Your task to perform on an android device: Open calendar and show me the second week of next month Image 0: 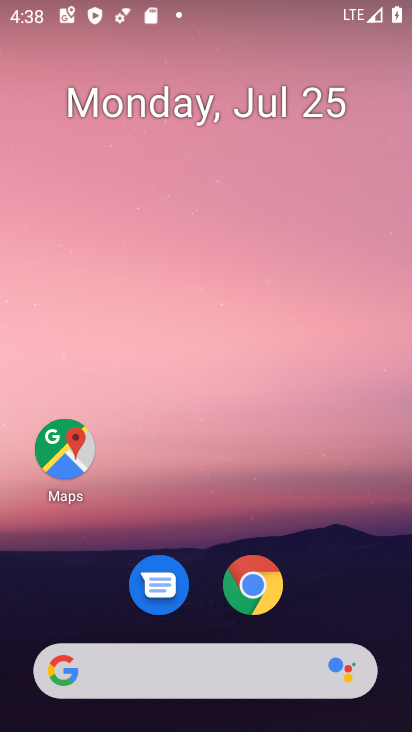
Step 0: drag from (223, 505) to (259, 125)
Your task to perform on an android device: Open calendar and show me the second week of next month Image 1: 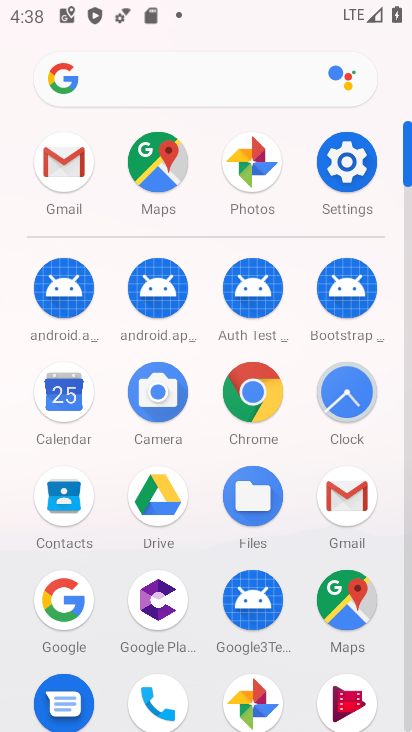
Step 1: click (72, 395)
Your task to perform on an android device: Open calendar and show me the second week of next month Image 2: 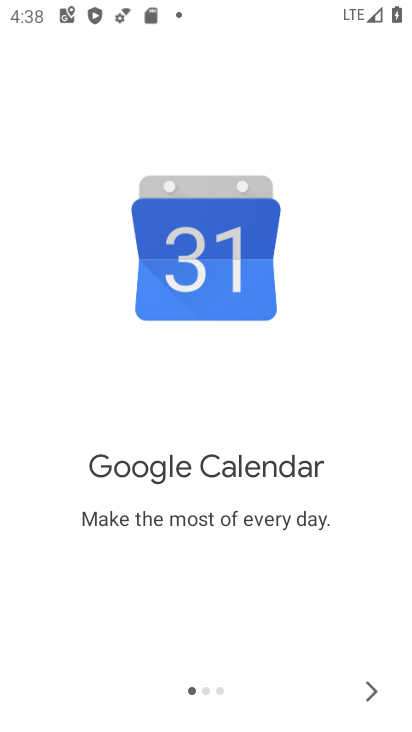
Step 2: click (372, 686)
Your task to perform on an android device: Open calendar and show me the second week of next month Image 3: 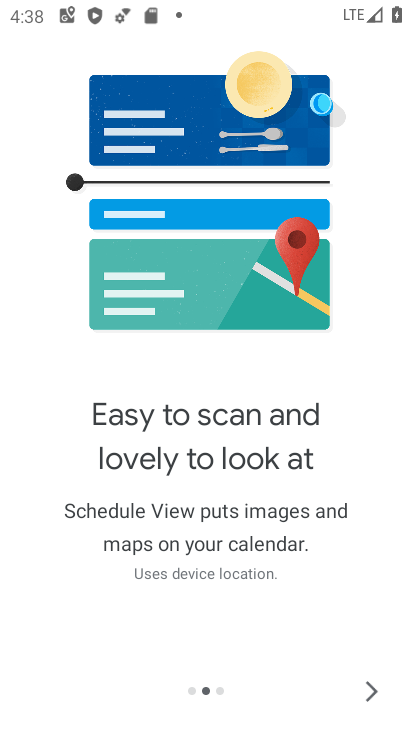
Step 3: click (372, 687)
Your task to perform on an android device: Open calendar and show me the second week of next month Image 4: 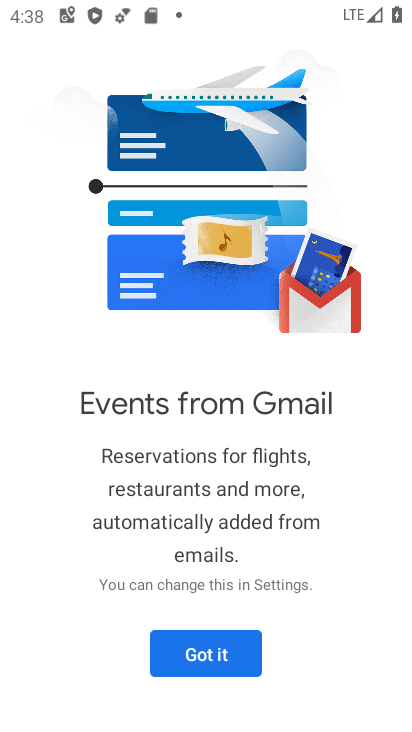
Step 4: click (236, 659)
Your task to perform on an android device: Open calendar and show me the second week of next month Image 5: 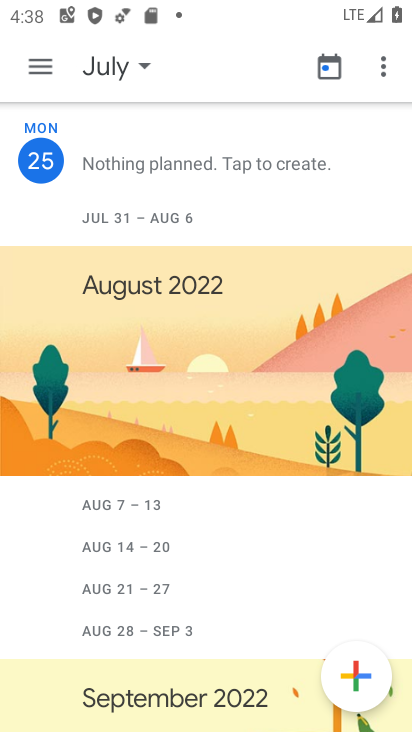
Step 5: click (39, 68)
Your task to perform on an android device: Open calendar and show me the second week of next month Image 6: 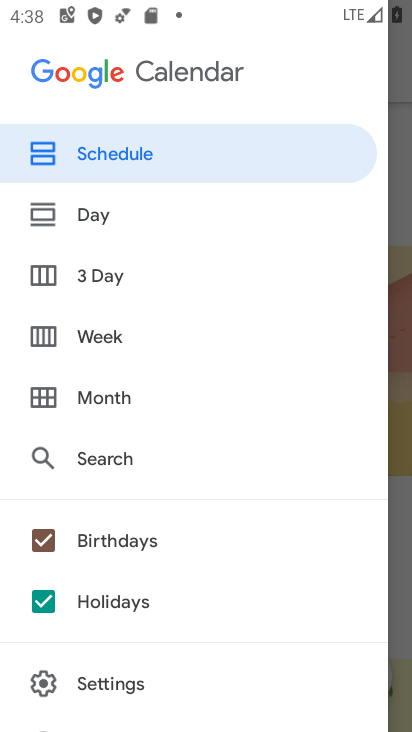
Step 6: click (46, 395)
Your task to perform on an android device: Open calendar and show me the second week of next month Image 7: 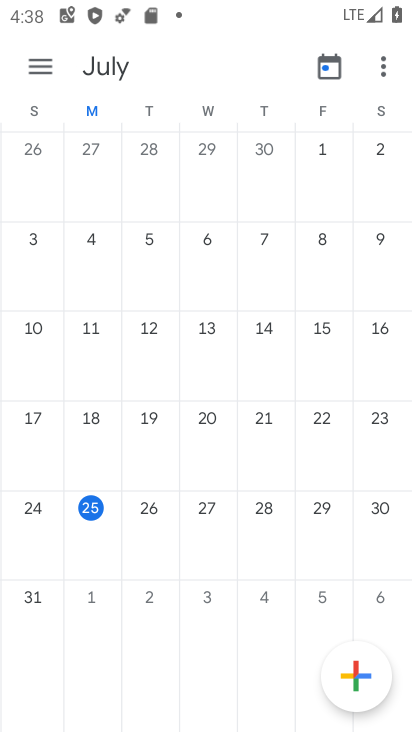
Step 7: drag from (360, 365) to (0, 349)
Your task to perform on an android device: Open calendar and show me the second week of next month Image 8: 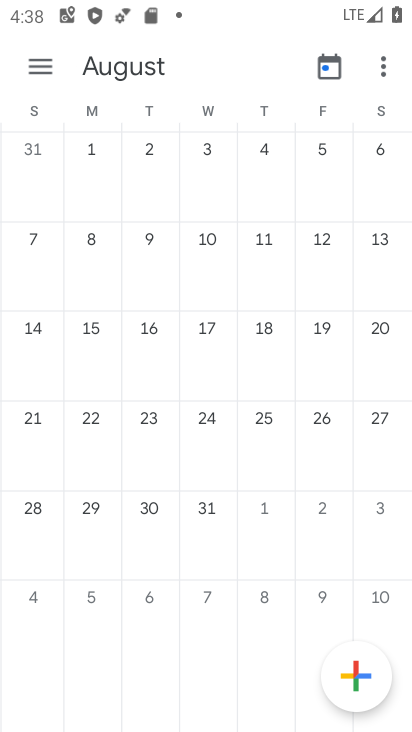
Step 8: click (41, 325)
Your task to perform on an android device: Open calendar and show me the second week of next month Image 9: 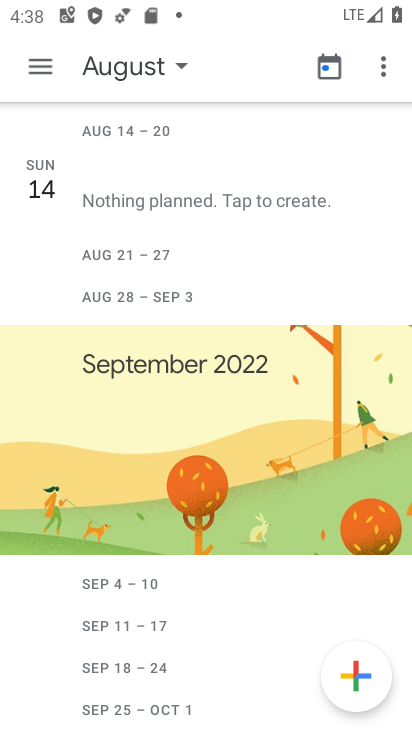
Step 9: click (47, 59)
Your task to perform on an android device: Open calendar and show me the second week of next month Image 10: 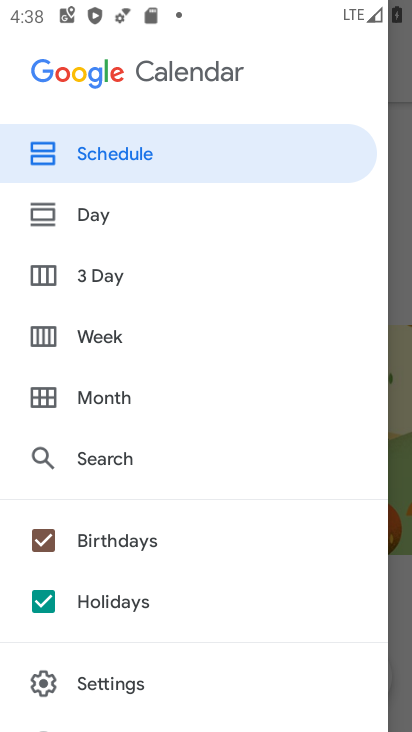
Step 10: click (45, 328)
Your task to perform on an android device: Open calendar and show me the second week of next month Image 11: 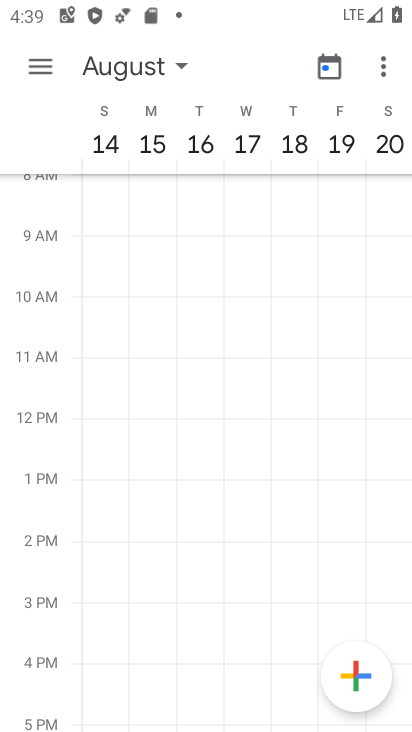
Step 11: task complete